Your task to perform on an android device: toggle show notifications on the lock screen Image 0: 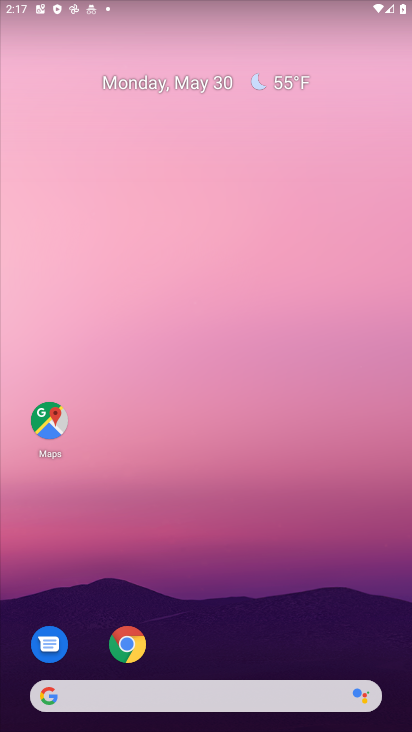
Step 0: task complete